Your task to perform on an android device: open a bookmark in the chrome app Image 0: 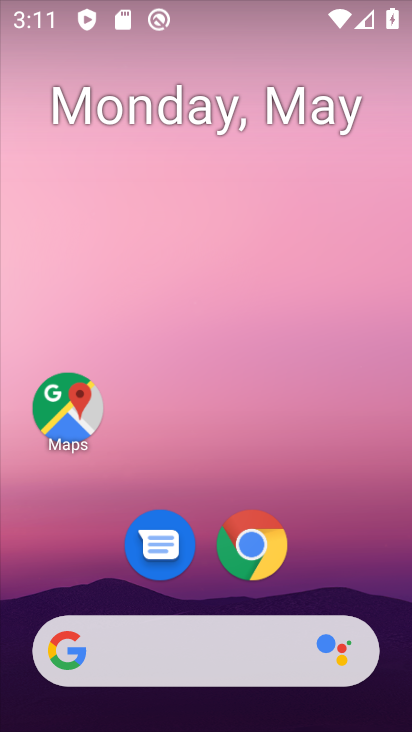
Step 0: click (262, 555)
Your task to perform on an android device: open a bookmark in the chrome app Image 1: 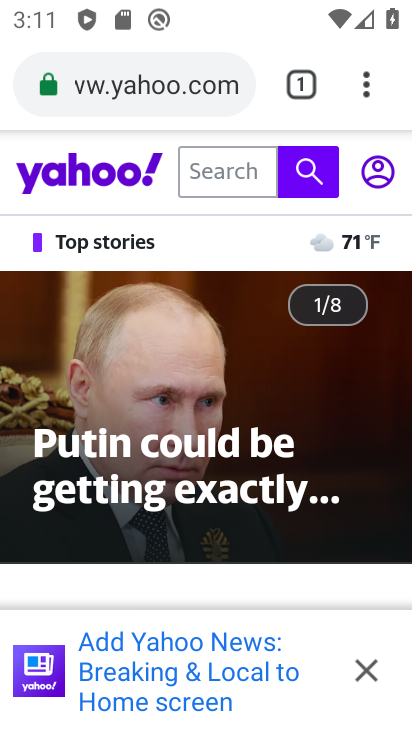
Step 1: drag from (366, 83) to (203, 312)
Your task to perform on an android device: open a bookmark in the chrome app Image 2: 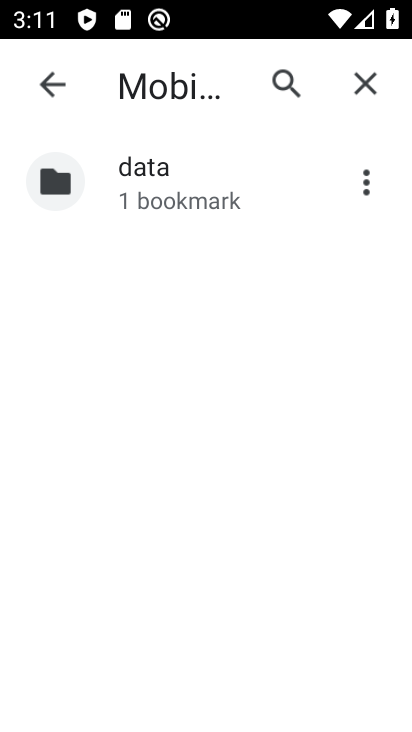
Step 2: click (195, 210)
Your task to perform on an android device: open a bookmark in the chrome app Image 3: 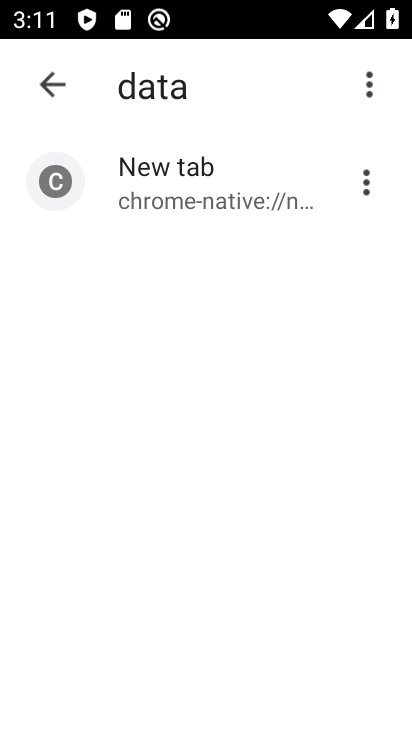
Step 3: click (195, 210)
Your task to perform on an android device: open a bookmark in the chrome app Image 4: 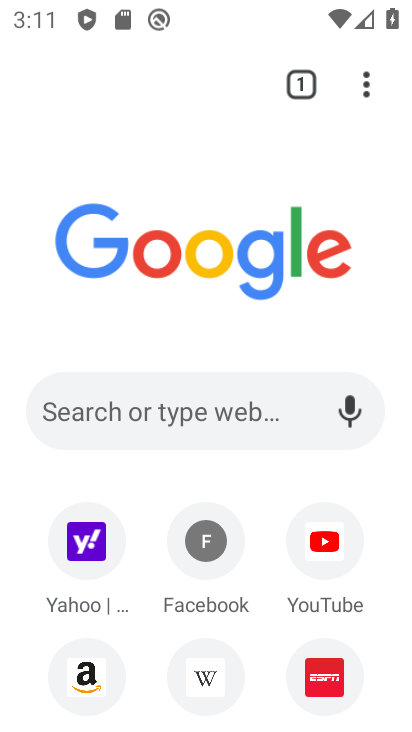
Step 4: task complete